Your task to perform on an android device: Open sound settings Image 0: 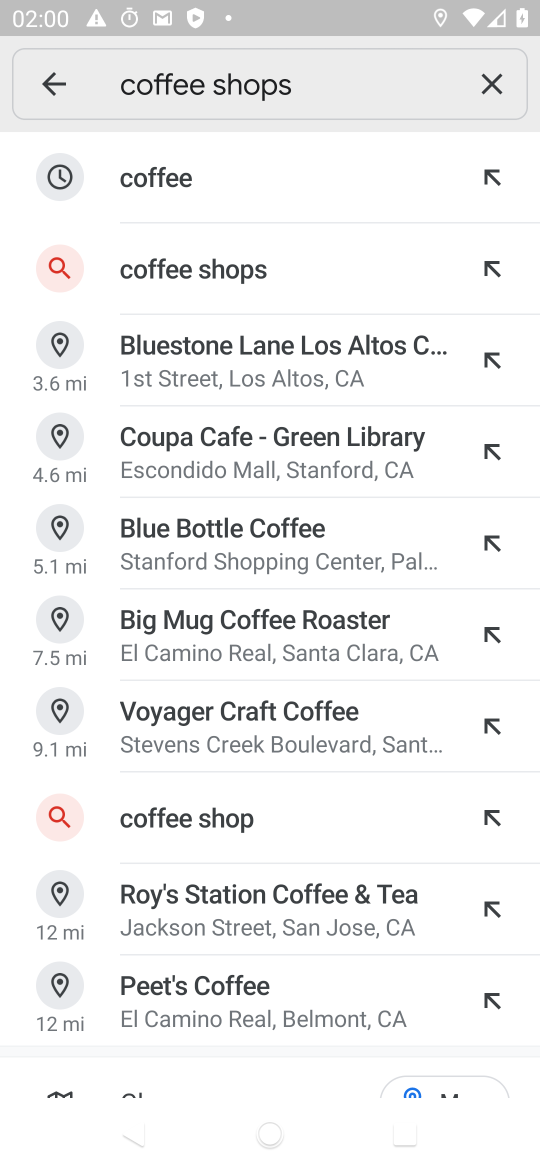
Step 0: press home button
Your task to perform on an android device: Open sound settings Image 1: 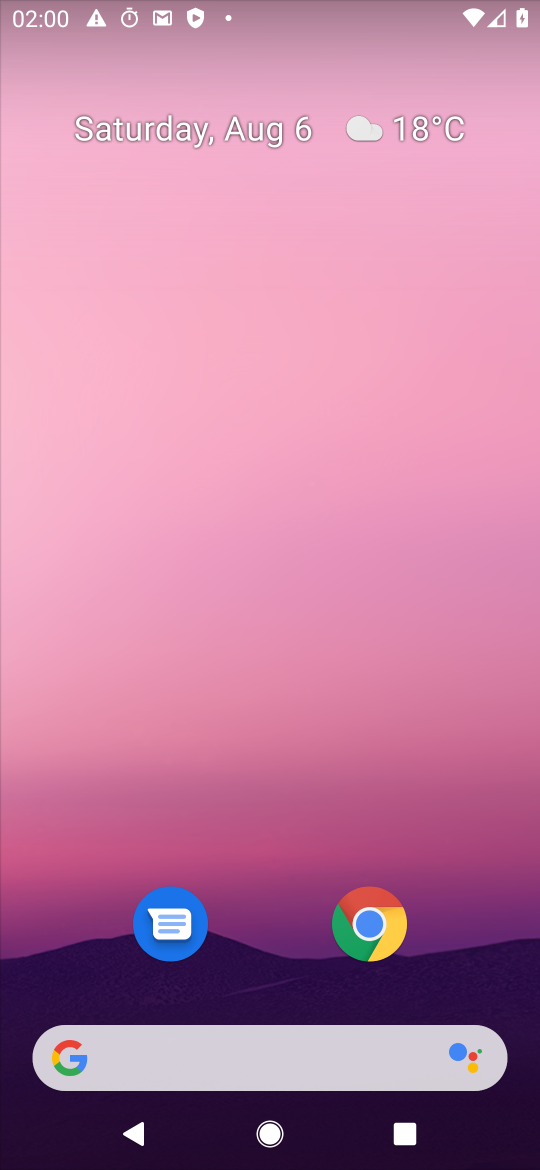
Step 1: drag from (306, 1050) to (237, 0)
Your task to perform on an android device: Open sound settings Image 2: 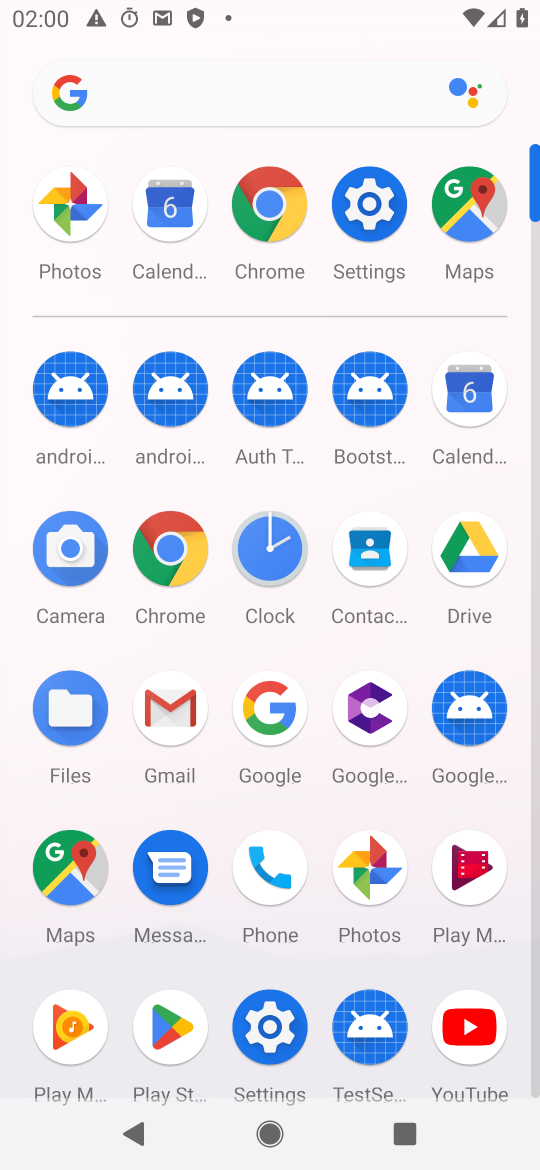
Step 2: click (367, 191)
Your task to perform on an android device: Open sound settings Image 3: 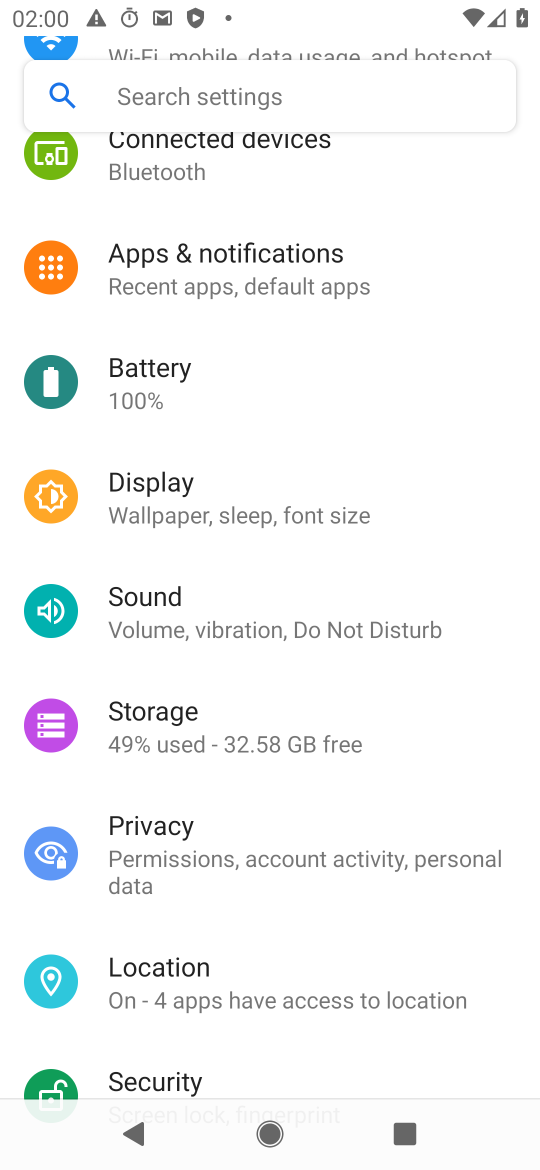
Step 3: click (245, 598)
Your task to perform on an android device: Open sound settings Image 4: 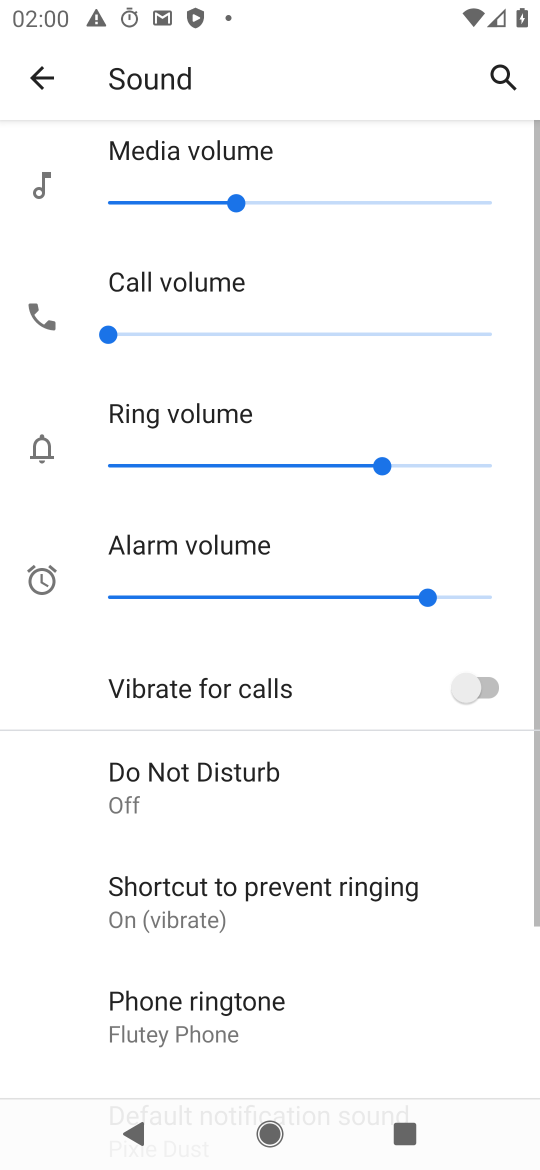
Step 4: task complete